Your task to perform on an android device: add a label to a message in the gmail app Image 0: 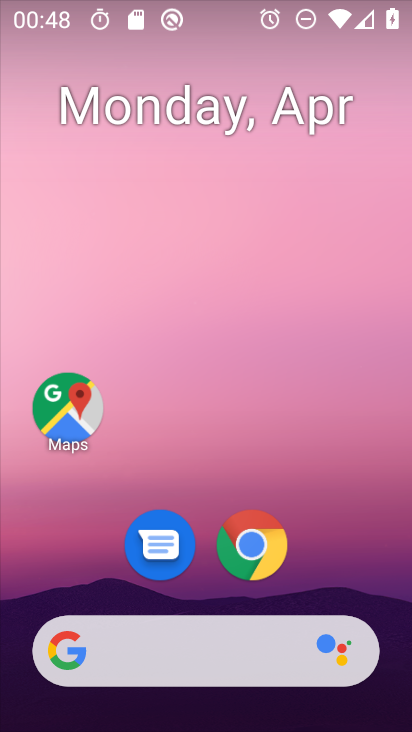
Step 0: click (305, 206)
Your task to perform on an android device: add a label to a message in the gmail app Image 1: 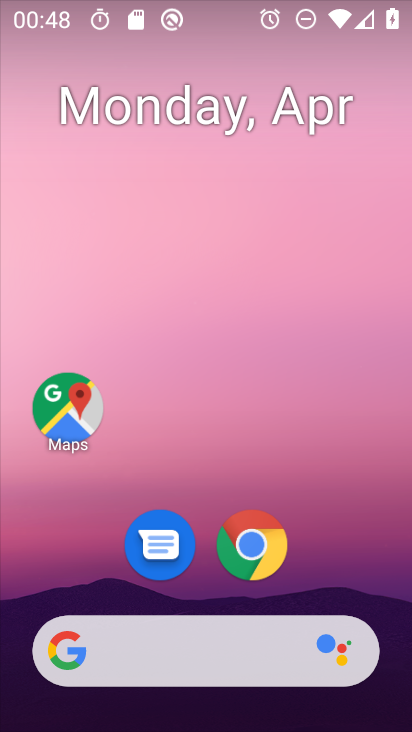
Step 1: drag from (315, 472) to (316, 244)
Your task to perform on an android device: add a label to a message in the gmail app Image 2: 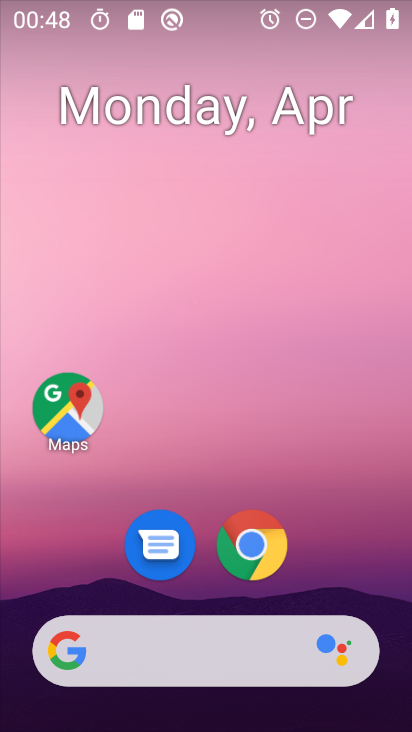
Step 2: drag from (355, 553) to (315, 136)
Your task to perform on an android device: add a label to a message in the gmail app Image 3: 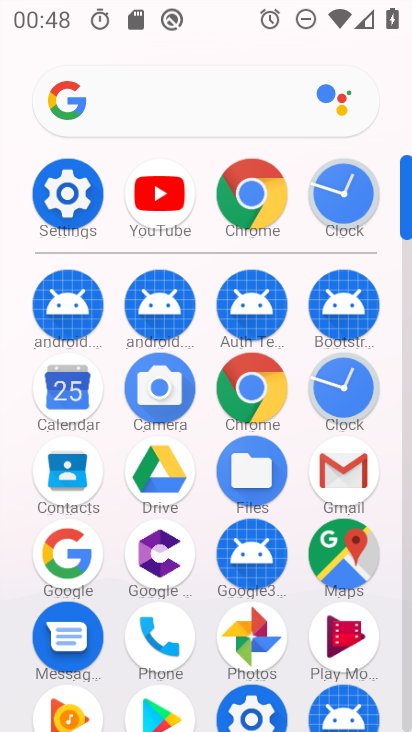
Step 3: click (330, 485)
Your task to perform on an android device: add a label to a message in the gmail app Image 4: 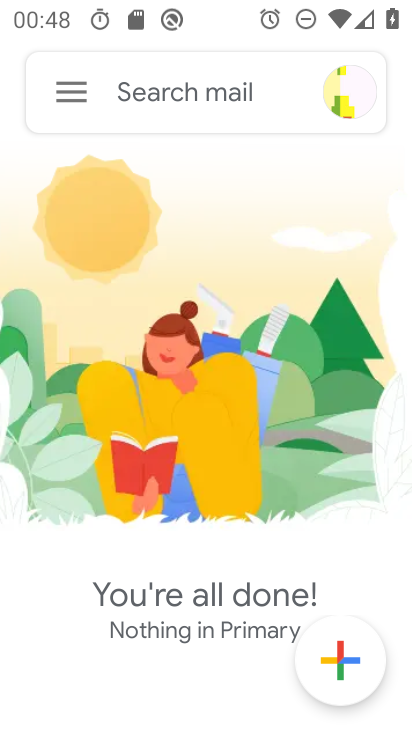
Step 4: click (68, 100)
Your task to perform on an android device: add a label to a message in the gmail app Image 5: 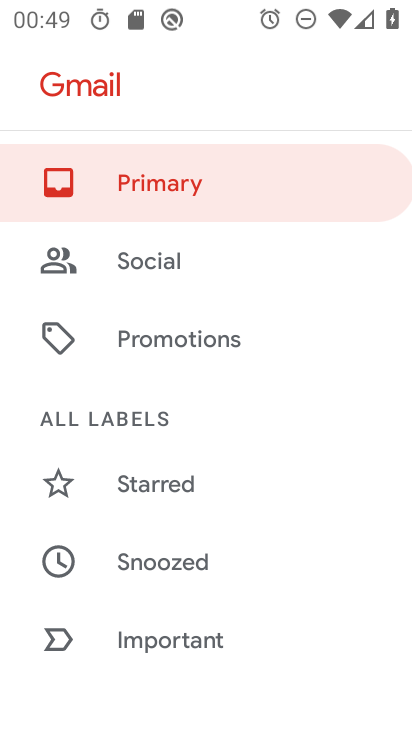
Step 5: drag from (256, 604) to (326, 174)
Your task to perform on an android device: add a label to a message in the gmail app Image 6: 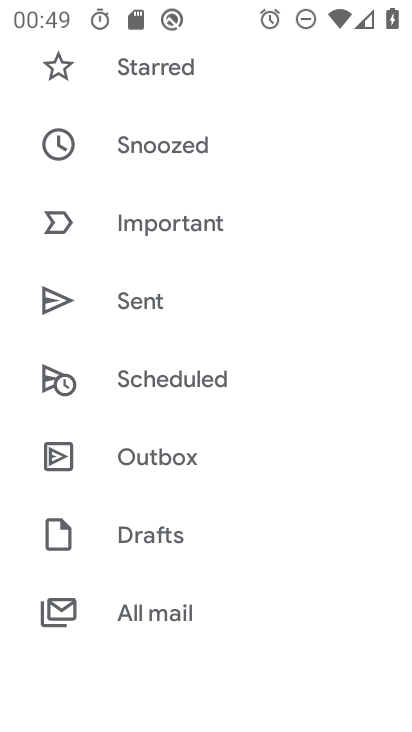
Step 6: click (182, 597)
Your task to perform on an android device: add a label to a message in the gmail app Image 7: 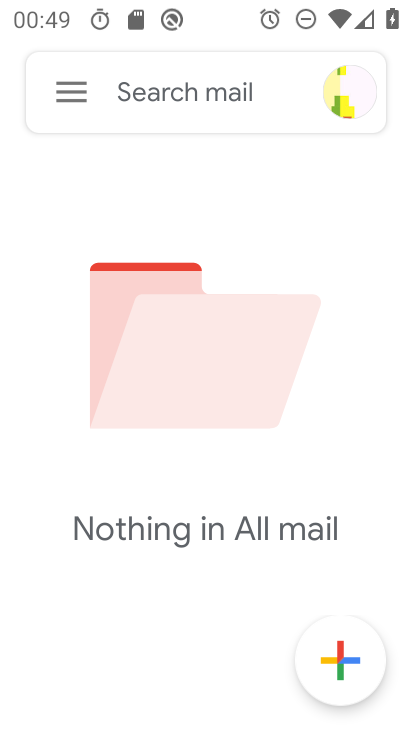
Step 7: task complete